Your task to perform on an android device: Go to eBay Image 0: 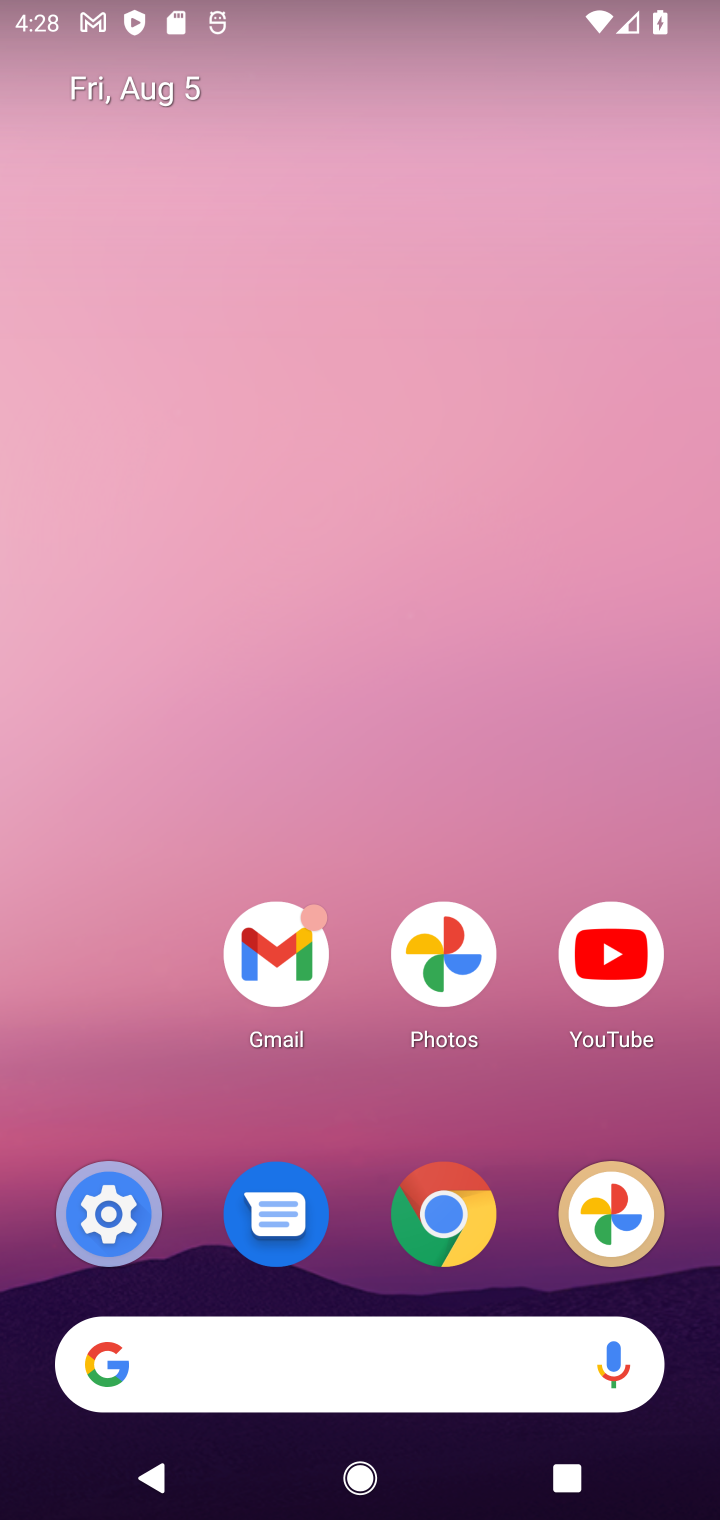
Step 0: click (288, 1383)
Your task to perform on an android device: Go to eBay Image 1: 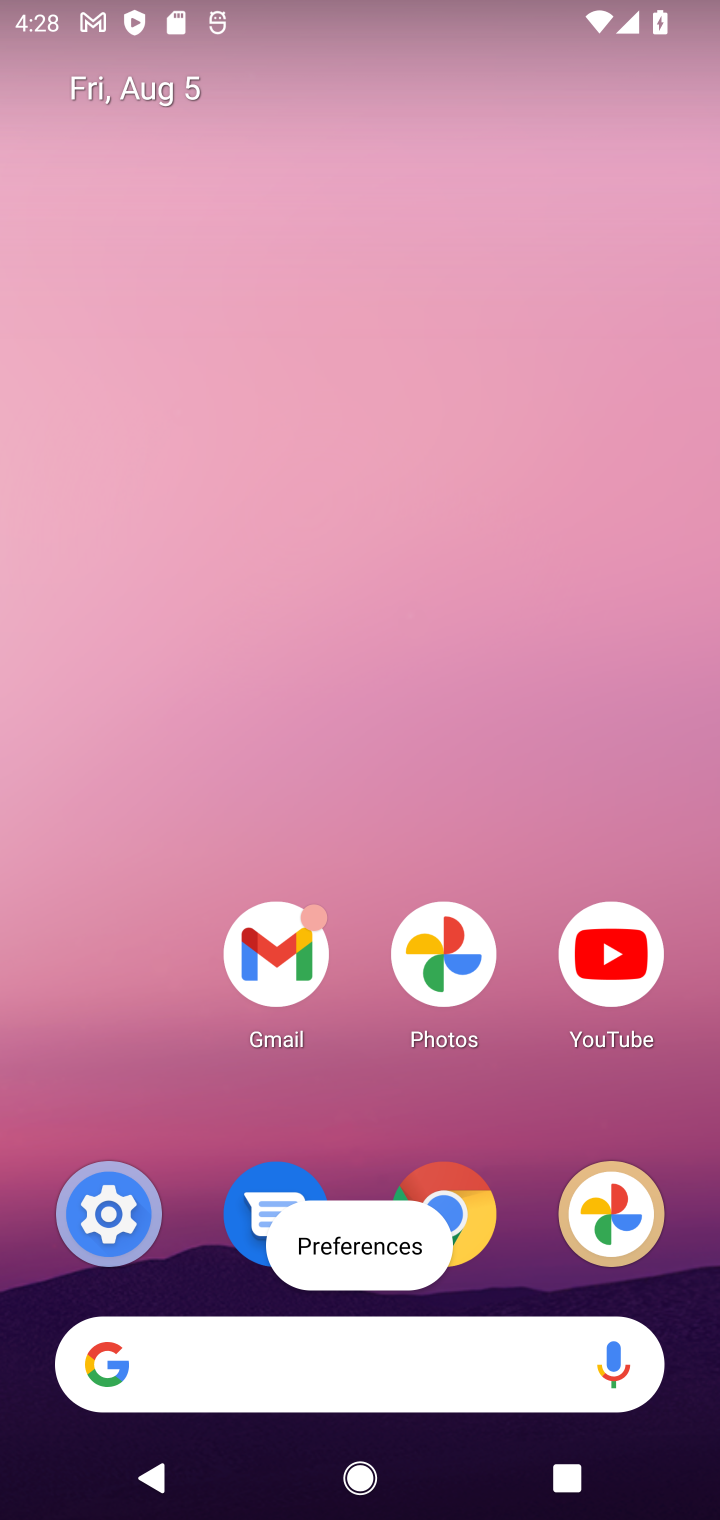
Step 1: click (392, 1401)
Your task to perform on an android device: Go to eBay Image 2: 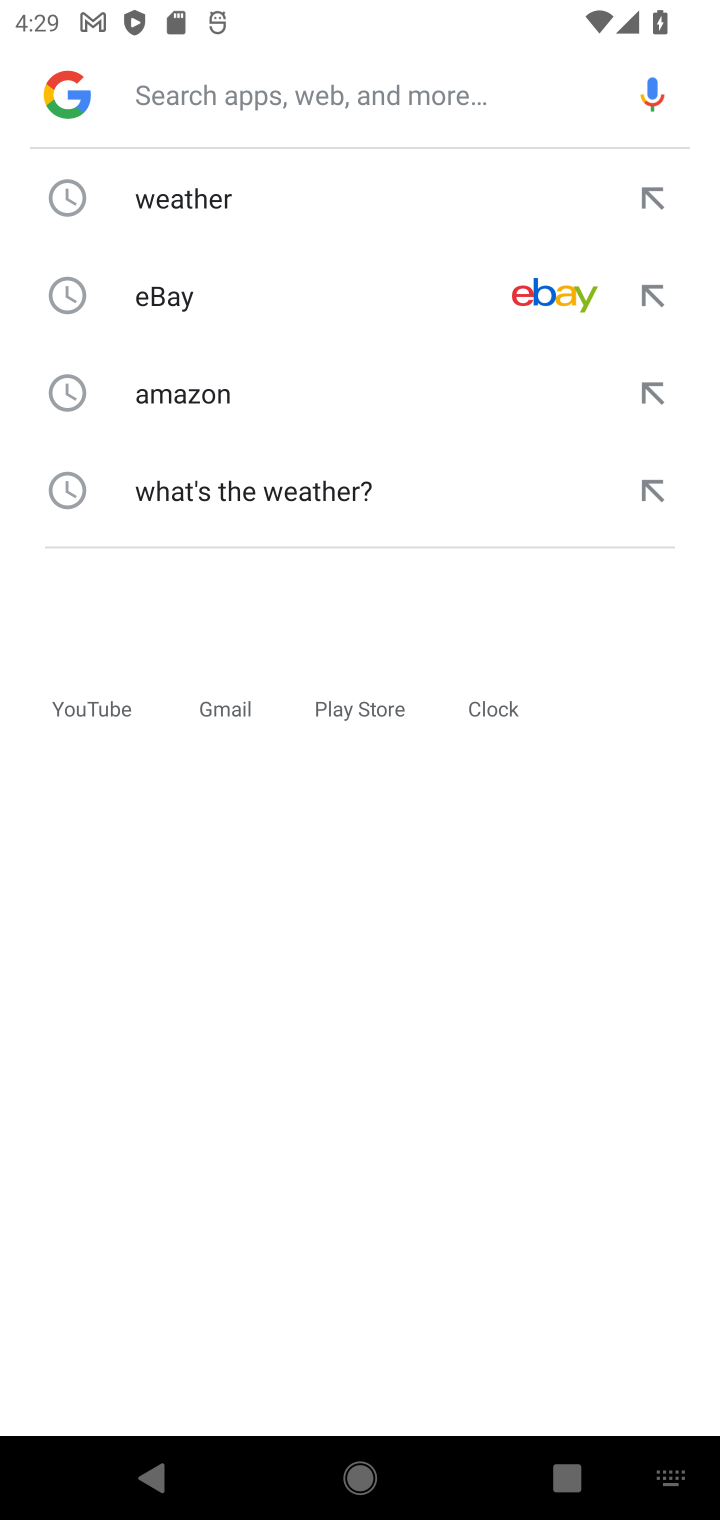
Step 2: click (452, 294)
Your task to perform on an android device: Go to eBay Image 3: 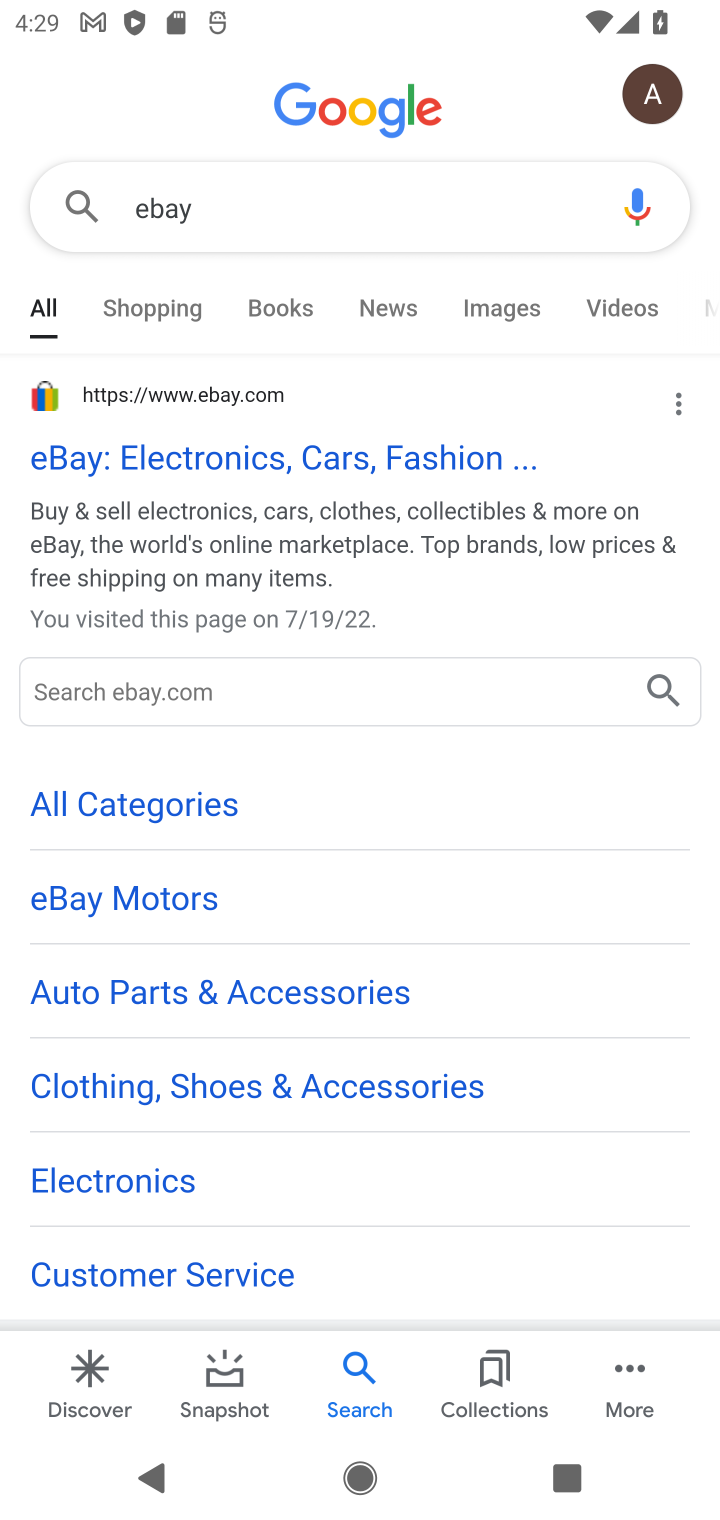
Step 3: click (225, 459)
Your task to perform on an android device: Go to eBay Image 4: 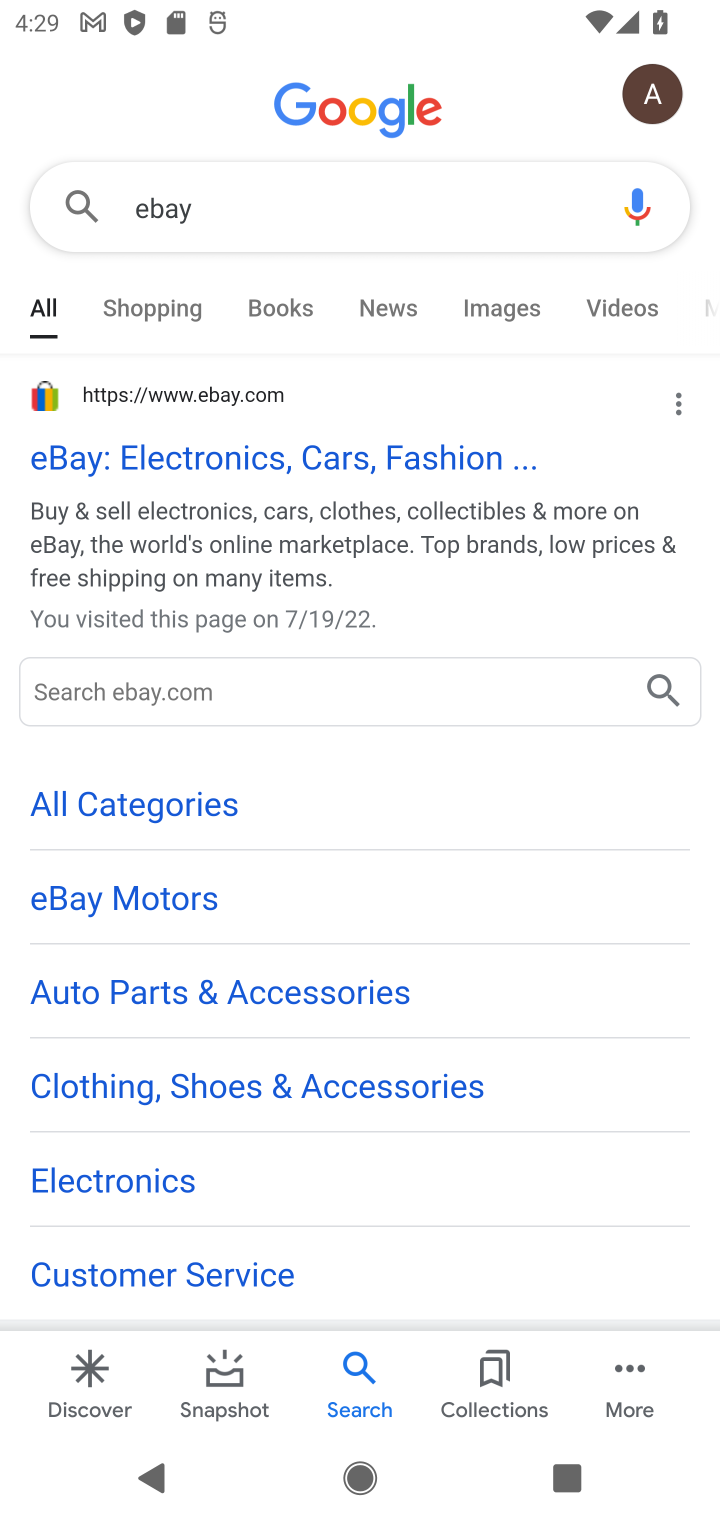
Step 4: click (54, 462)
Your task to perform on an android device: Go to eBay Image 5: 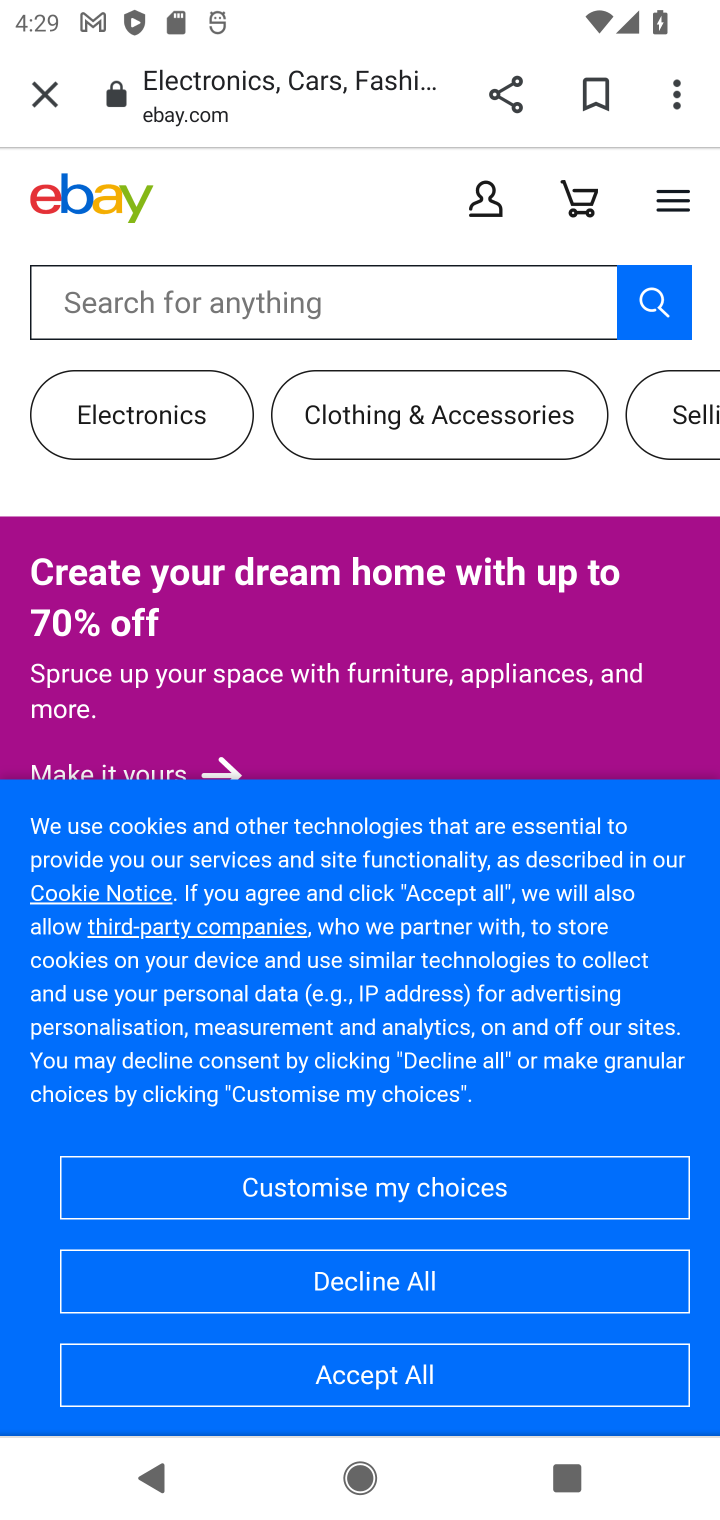
Step 5: click (460, 1372)
Your task to perform on an android device: Go to eBay Image 6: 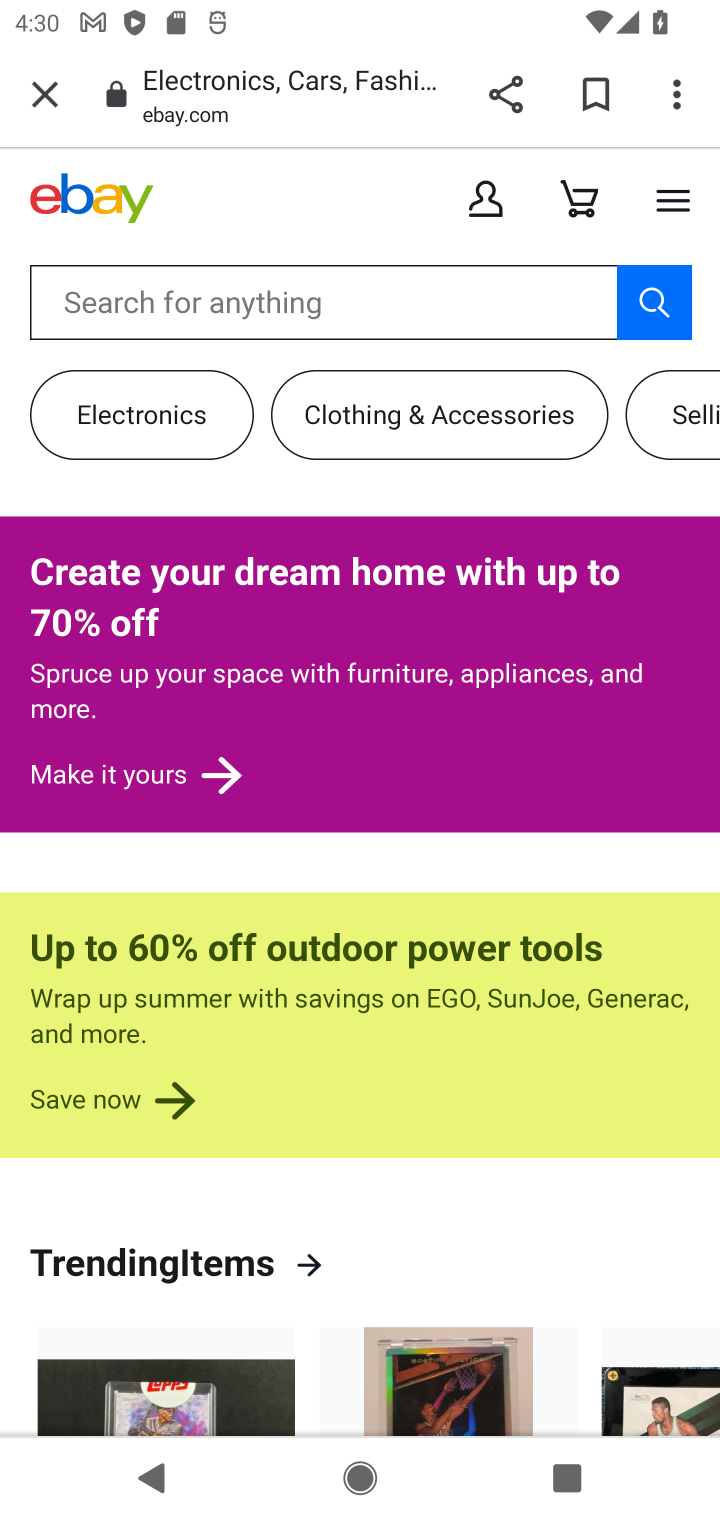
Step 6: task complete